Your task to perform on an android device: toggle data saver in the chrome app Image 0: 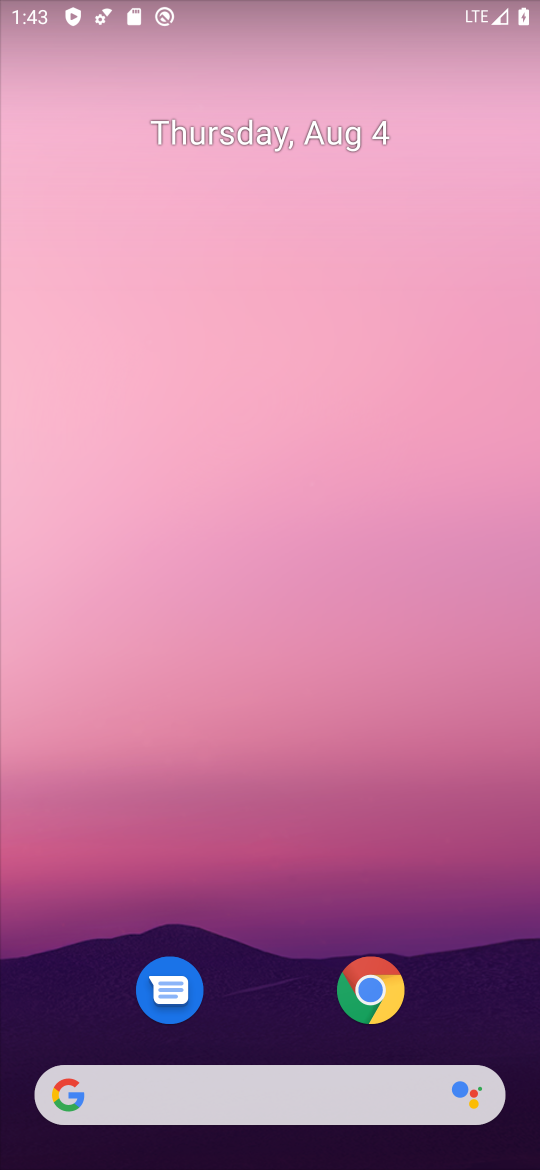
Step 0: click (386, 975)
Your task to perform on an android device: toggle data saver in the chrome app Image 1: 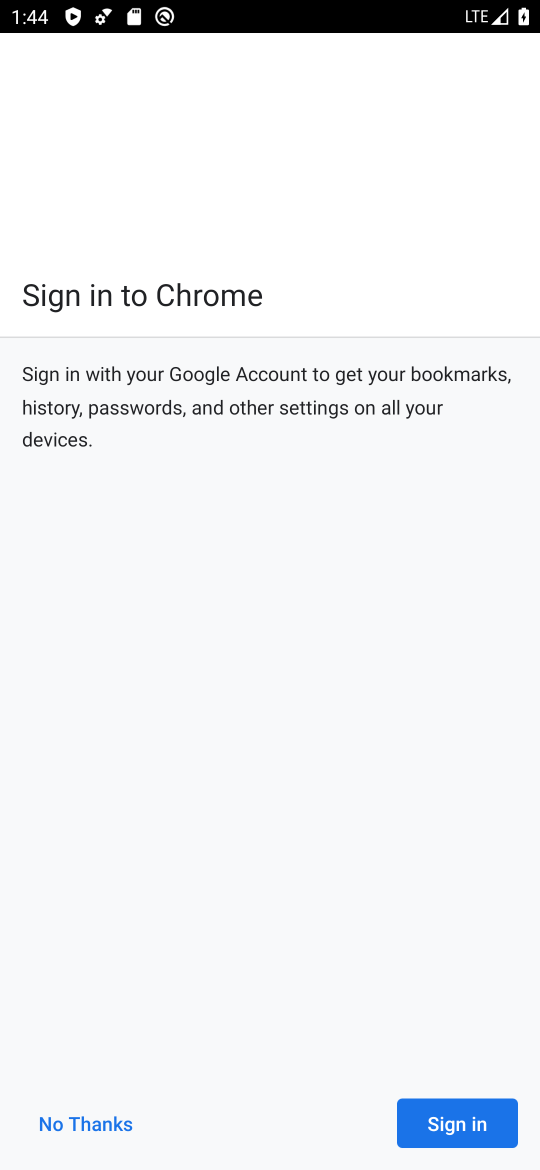
Step 1: click (448, 1138)
Your task to perform on an android device: toggle data saver in the chrome app Image 2: 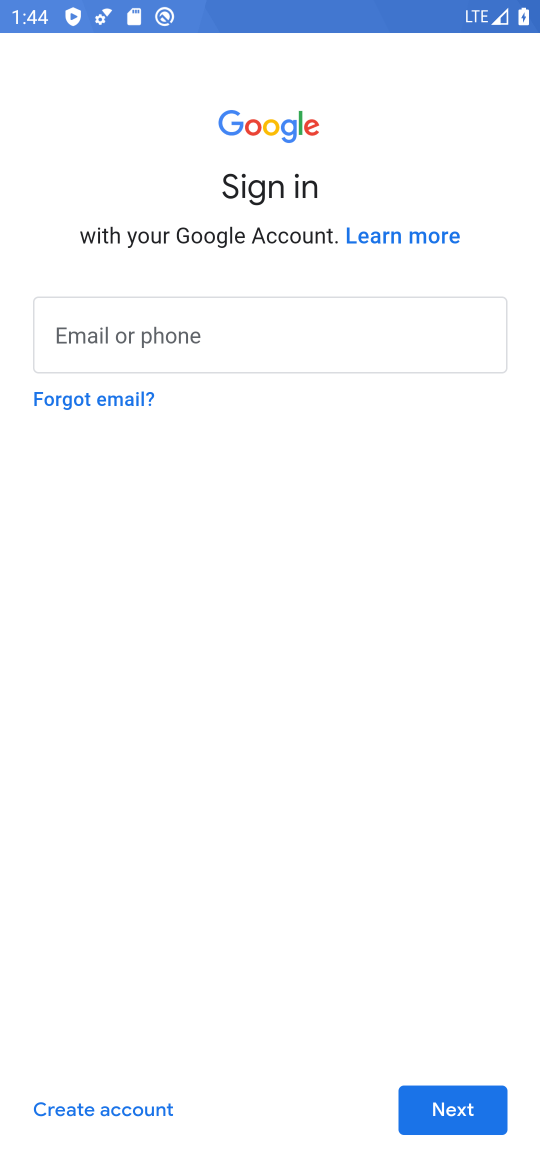
Step 2: task complete